Your task to perform on an android device: open app "Venmo" (install if not already installed) and enter user name: "bleedings@gmail.com" and password: "copied" Image 0: 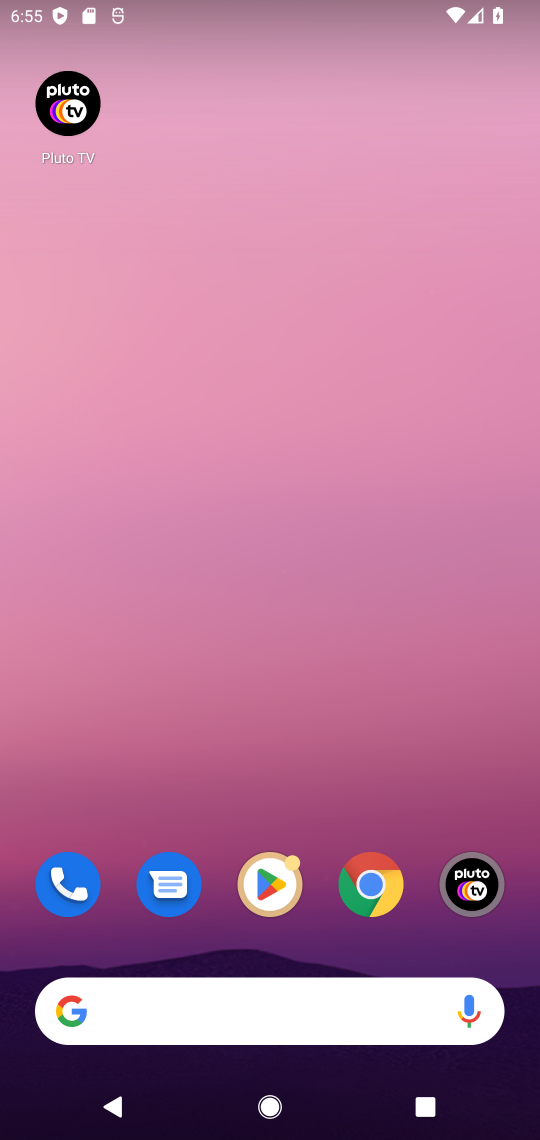
Step 0: click (287, 897)
Your task to perform on an android device: open app "Venmo" (install if not already installed) and enter user name: "bleedings@gmail.com" and password: "copied" Image 1: 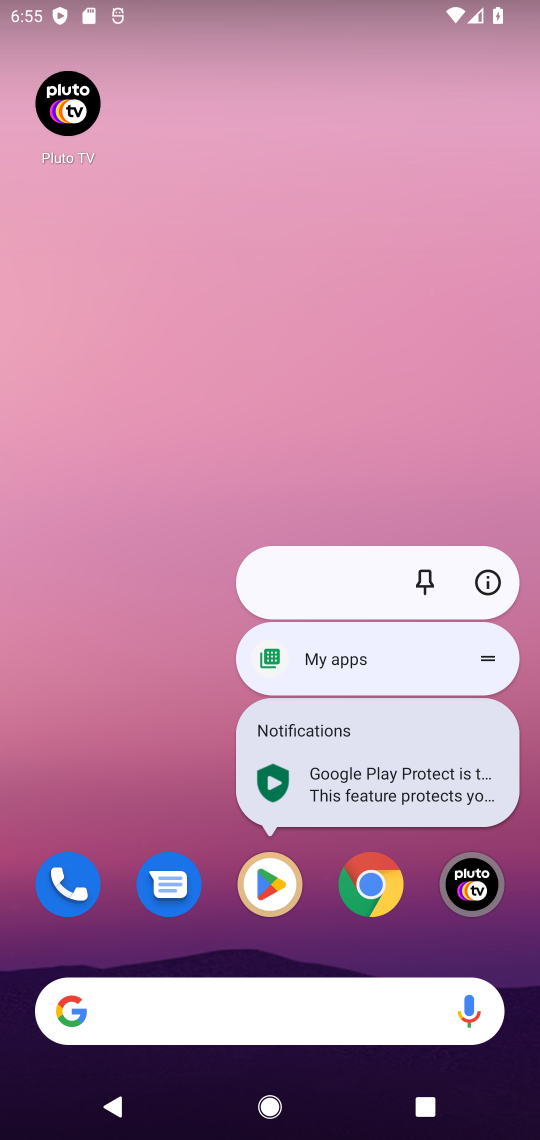
Step 1: click (261, 905)
Your task to perform on an android device: open app "Venmo" (install if not already installed) and enter user name: "bleedings@gmail.com" and password: "copied" Image 2: 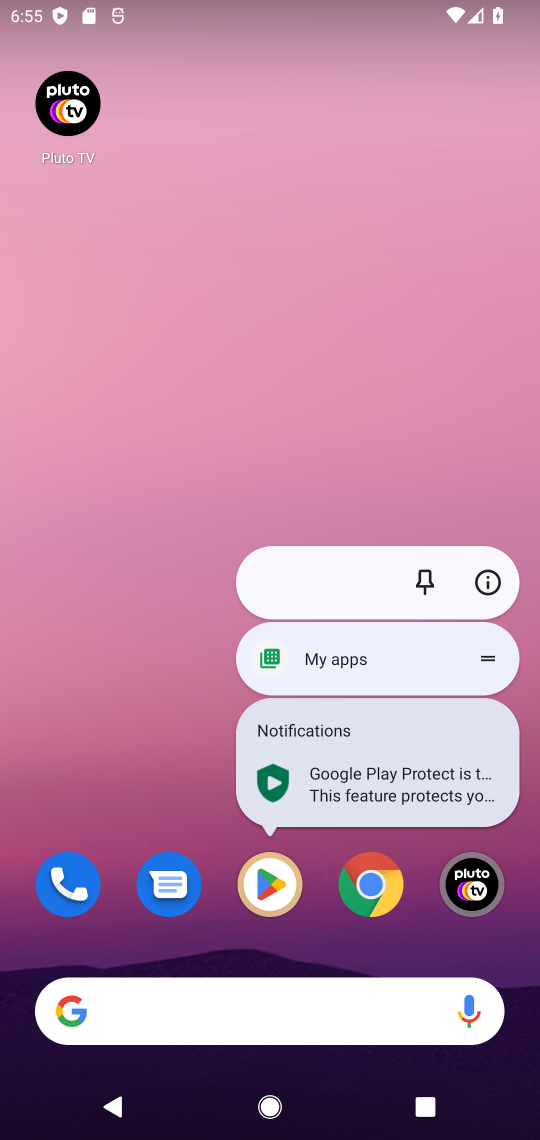
Step 2: click (261, 905)
Your task to perform on an android device: open app "Venmo" (install if not already installed) and enter user name: "bleedings@gmail.com" and password: "copied" Image 3: 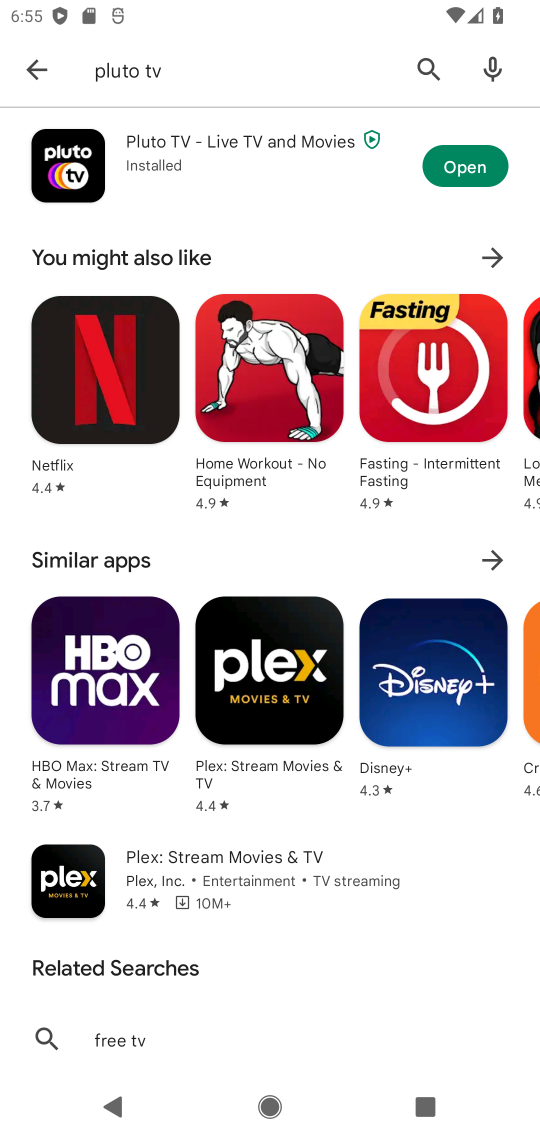
Step 3: click (422, 69)
Your task to perform on an android device: open app "Venmo" (install if not already installed) and enter user name: "bleedings@gmail.com" and password: "copied" Image 4: 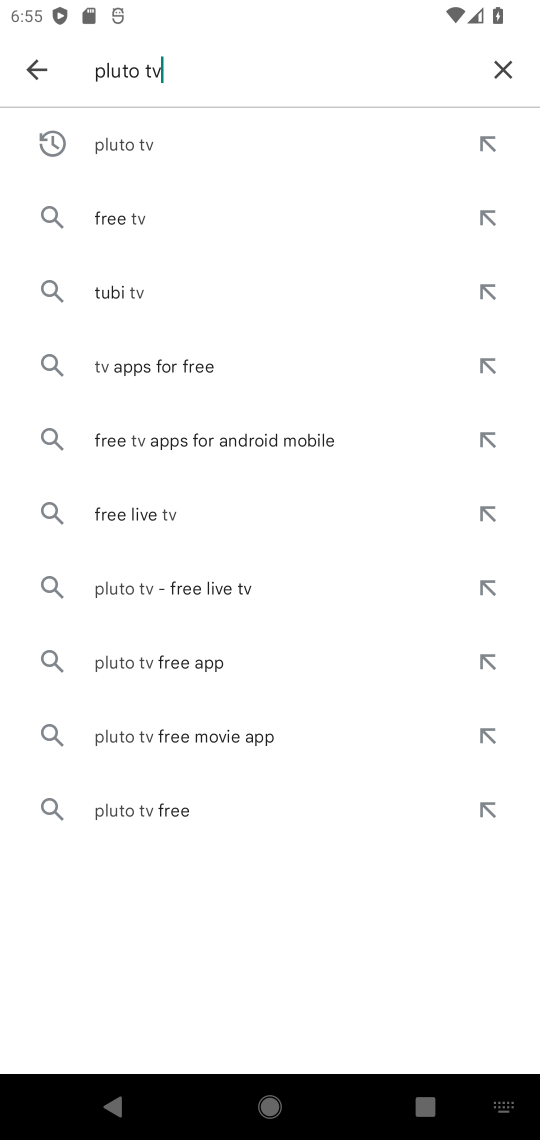
Step 4: click (492, 76)
Your task to perform on an android device: open app "Venmo" (install if not already installed) and enter user name: "bleedings@gmail.com" and password: "copied" Image 5: 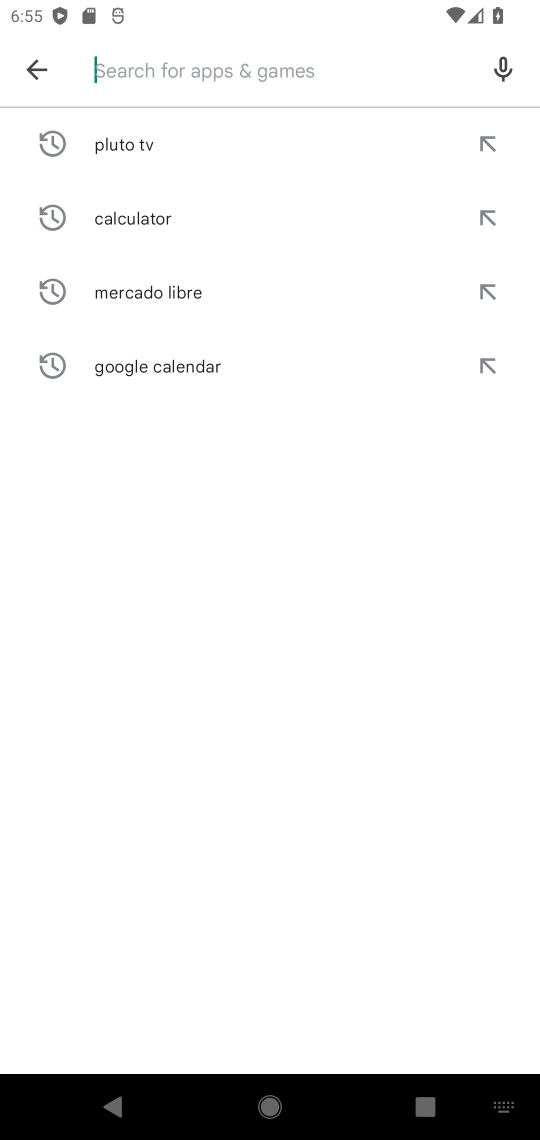
Step 5: type "venmo"
Your task to perform on an android device: open app "Venmo" (install if not already installed) and enter user name: "bleedings@gmail.com" and password: "copied" Image 6: 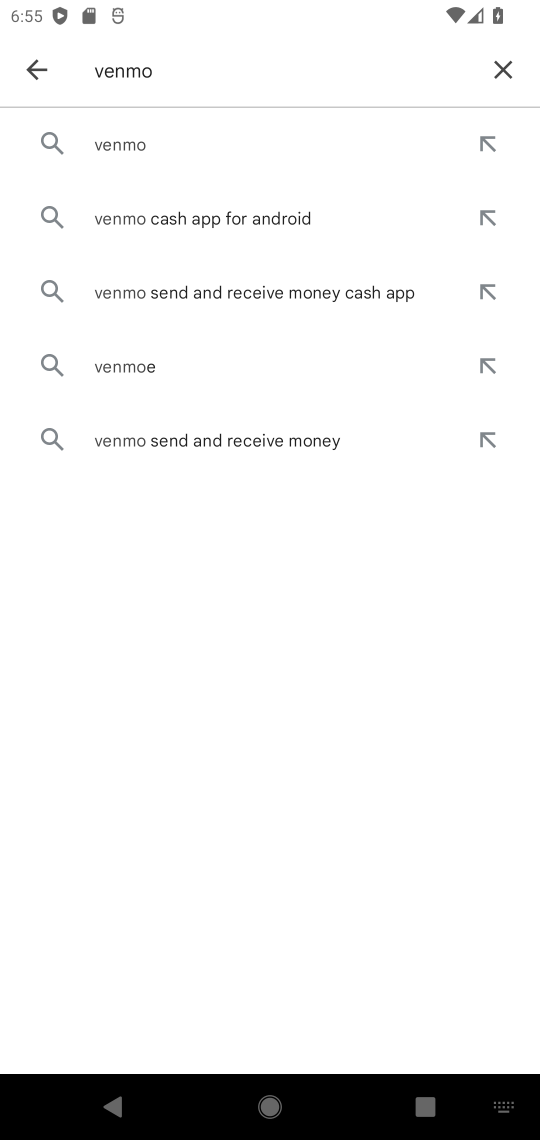
Step 6: click (157, 148)
Your task to perform on an android device: open app "Venmo" (install if not already installed) and enter user name: "bleedings@gmail.com" and password: "copied" Image 7: 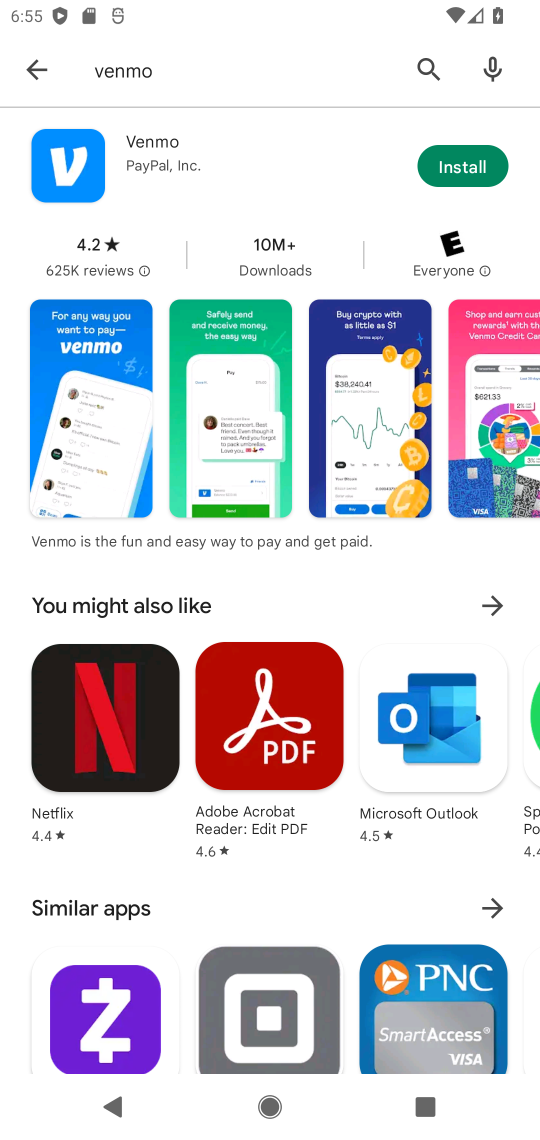
Step 7: click (450, 179)
Your task to perform on an android device: open app "Venmo" (install if not already installed) and enter user name: "bleedings@gmail.com" and password: "copied" Image 8: 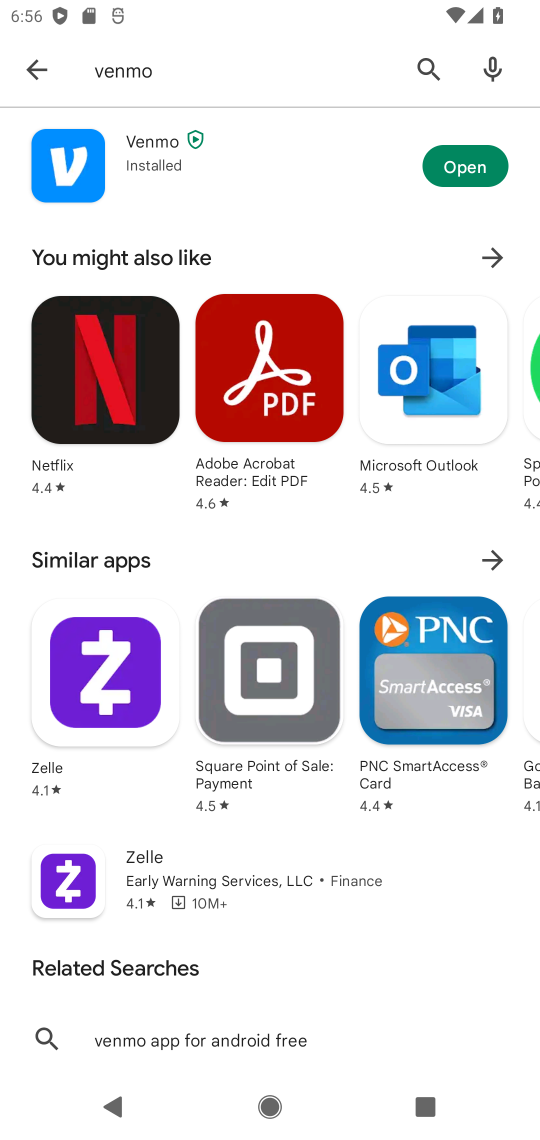
Step 8: click (457, 174)
Your task to perform on an android device: open app "Venmo" (install if not already installed) and enter user name: "bleedings@gmail.com" and password: "copied" Image 9: 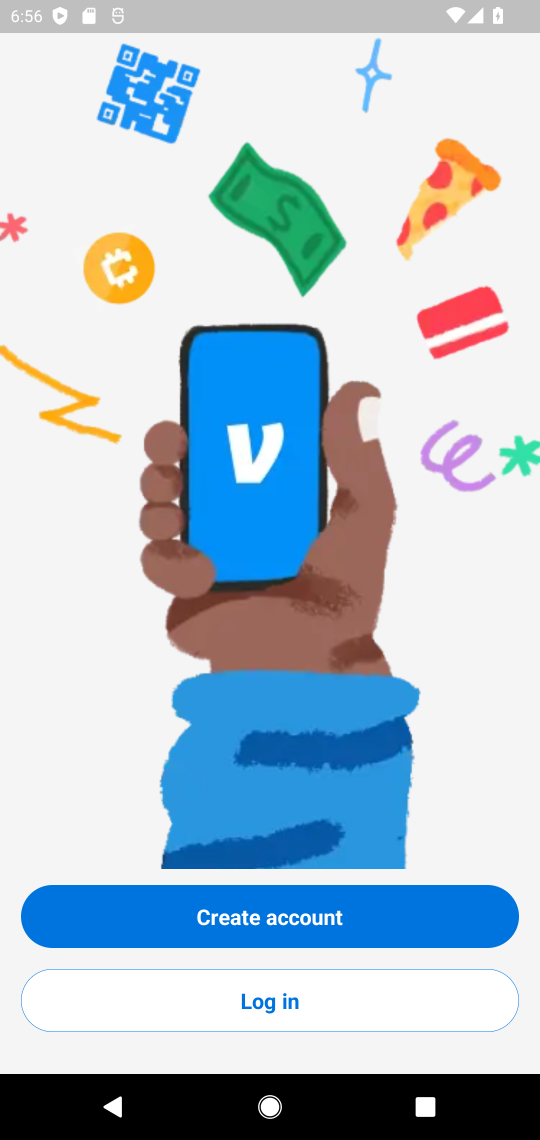
Step 9: click (281, 998)
Your task to perform on an android device: open app "Venmo" (install if not already installed) and enter user name: "bleedings@gmail.com" and password: "copied" Image 10: 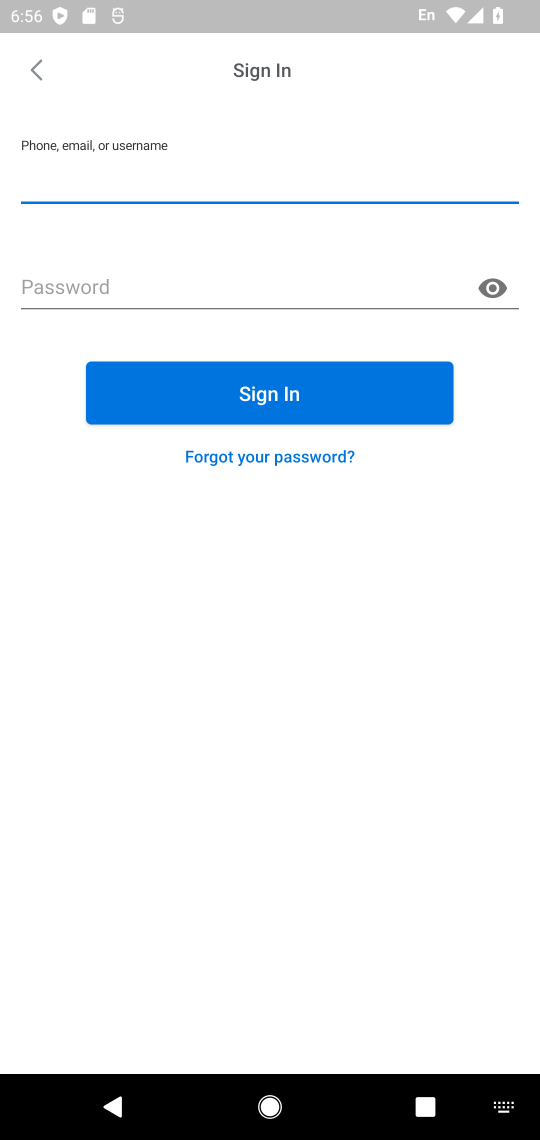
Step 10: type "bleedings@gmail.com"
Your task to perform on an android device: open app "Venmo" (install if not already installed) and enter user name: "bleedings@gmail.com" and password: "copied" Image 11: 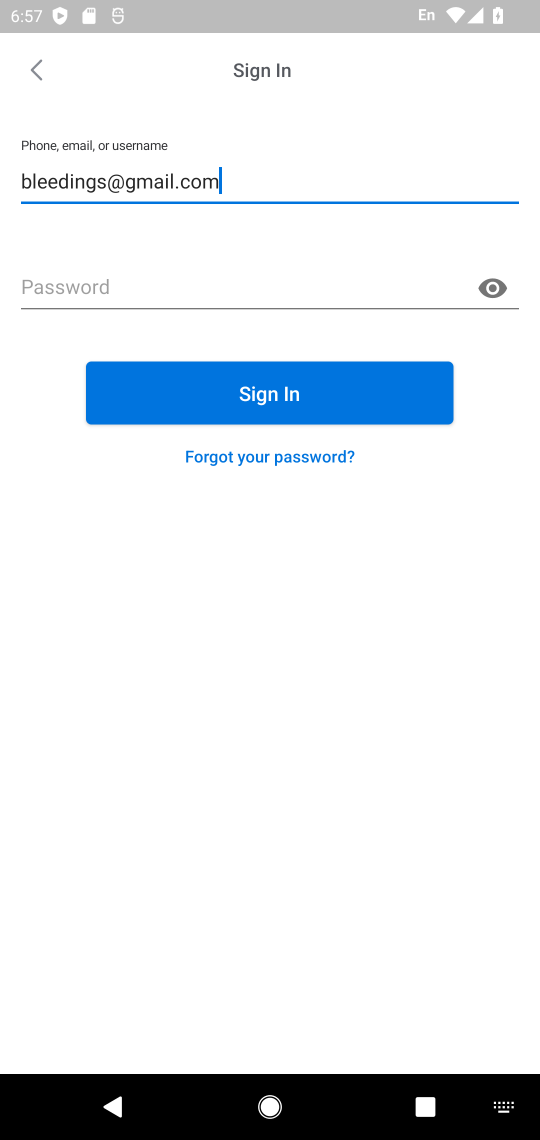
Step 11: click (294, 299)
Your task to perform on an android device: open app "Venmo" (install if not already installed) and enter user name: "bleedings@gmail.com" and password: "copied" Image 12: 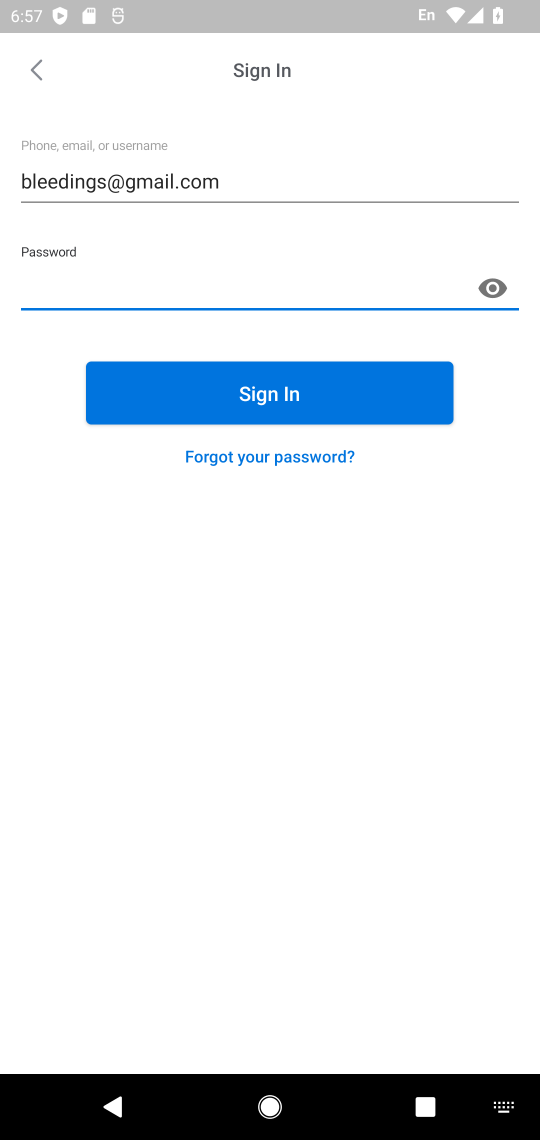
Step 12: type "copied"
Your task to perform on an android device: open app "Venmo" (install if not already installed) and enter user name: "bleedings@gmail.com" and password: "copied" Image 13: 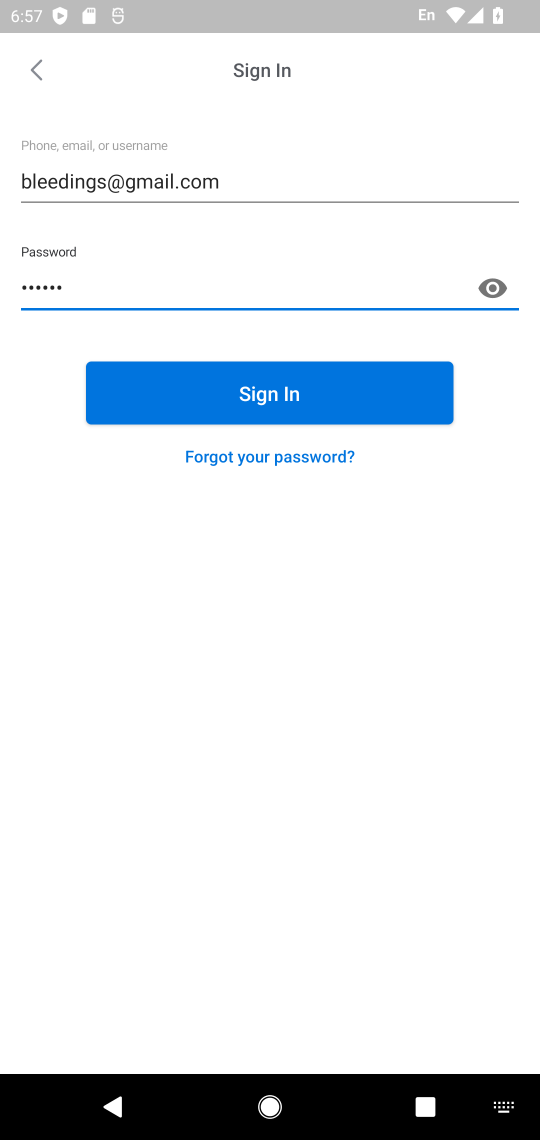
Step 13: task complete